Your task to perform on an android device: clear all cookies in the chrome app Image 0: 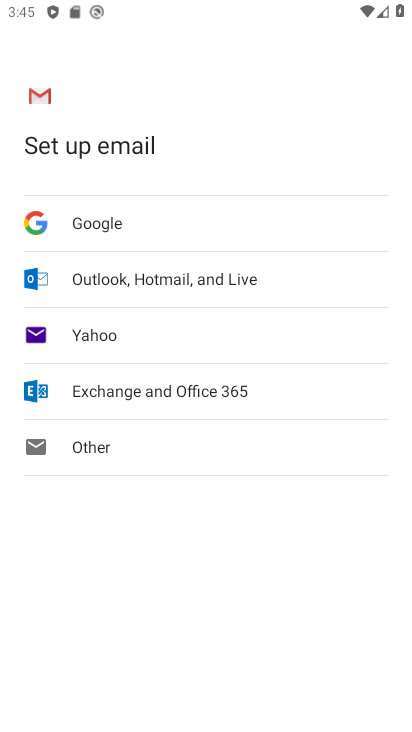
Step 0: press back button
Your task to perform on an android device: clear all cookies in the chrome app Image 1: 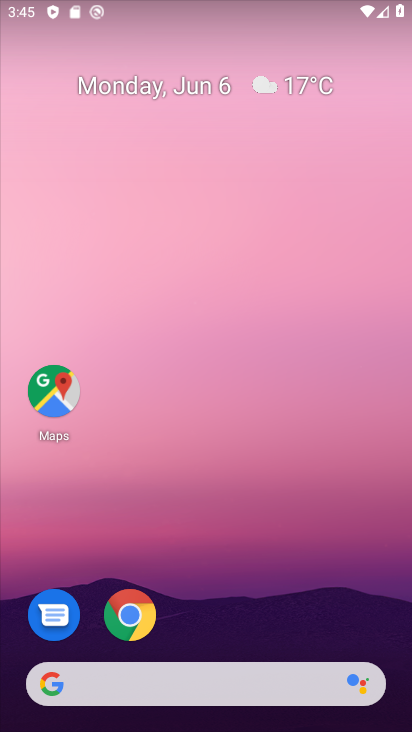
Step 1: drag from (284, 553) to (259, 37)
Your task to perform on an android device: clear all cookies in the chrome app Image 2: 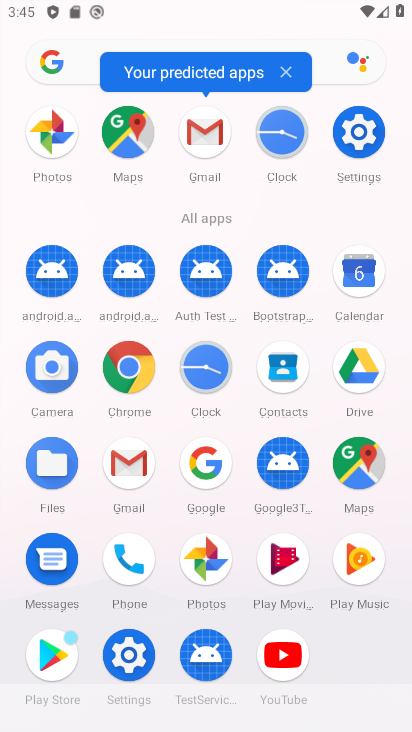
Step 2: drag from (9, 461) to (9, 247)
Your task to perform on an android device: clear all cookies in the chrome app Image 3: 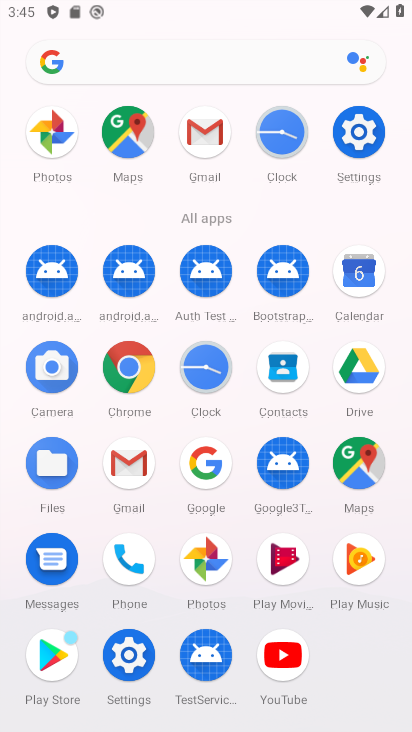
Step 3: drag from (14, 562) to (1, 243)
Your task to perform on an android device: clear all cookies in the chrome app Image 4: 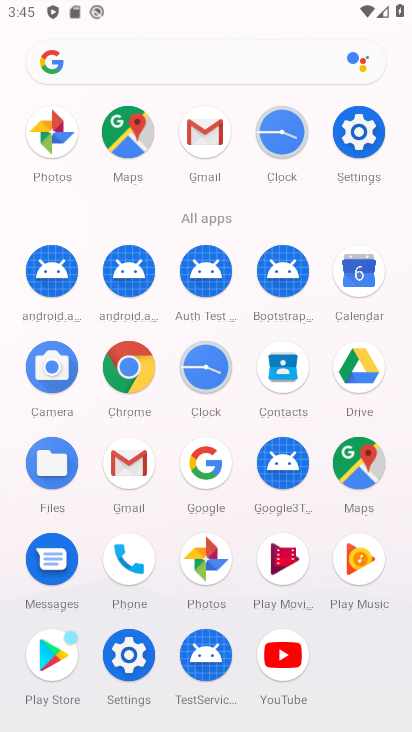
Step 4: click (124, 357)
Your task to perform on an android device: clear all cookies in the chrome app Image 5: 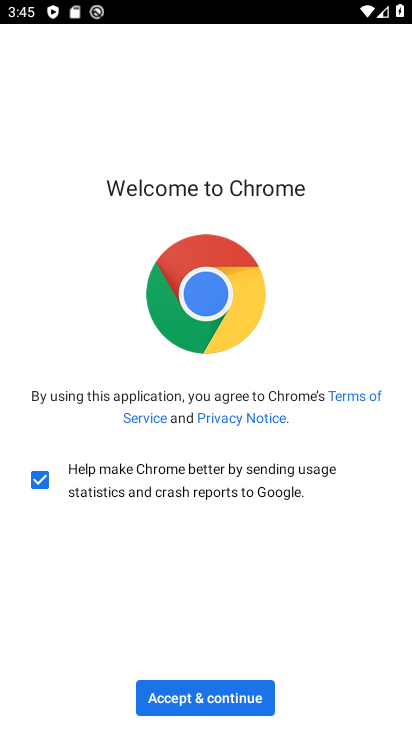
Step 5: click (222, 687)
Your task to perform on an android device: clear all cookies in the chrome app Image 6: 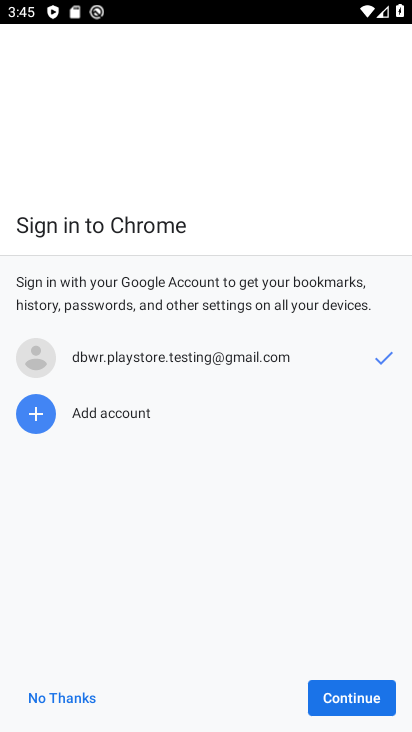
Step 6: click (332, 682)
Your task to perform on an android device: clear all cookies in the chrome app Image 7: 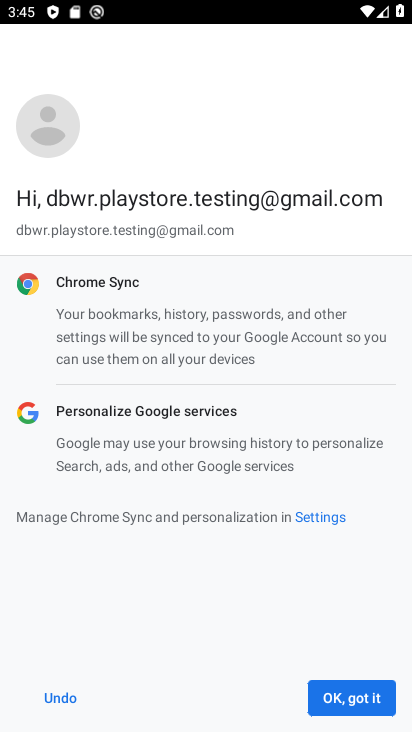
Step 7: click (350, 693)
Your task to perform on an android device: clear all cookies in the chrome app Image 8: 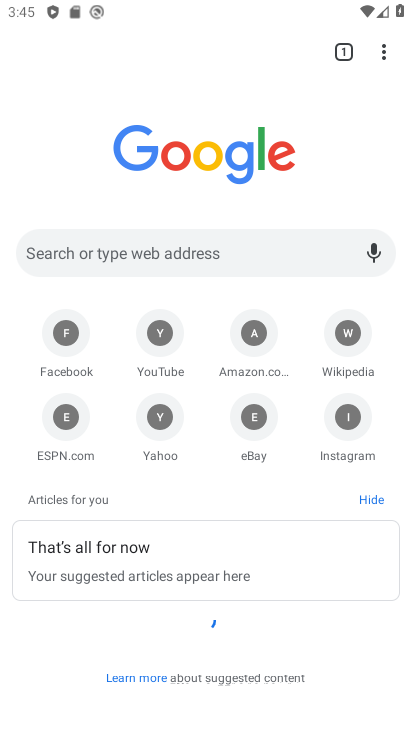
Step 8: drag from (379, 48) to (197, 421)
Your task to perform on an android device: clear all cookies in the chrome app Image 9: 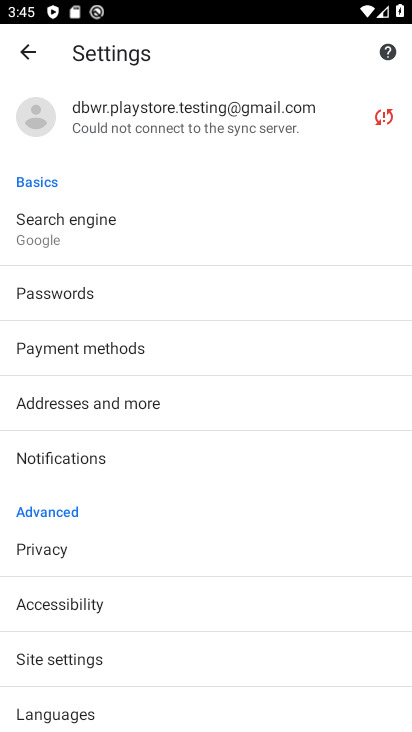
Step 9: drag from (192, 623) to (216, 327)
Your task to perform on an android device: clear all cookies in the chrome app Image 10: 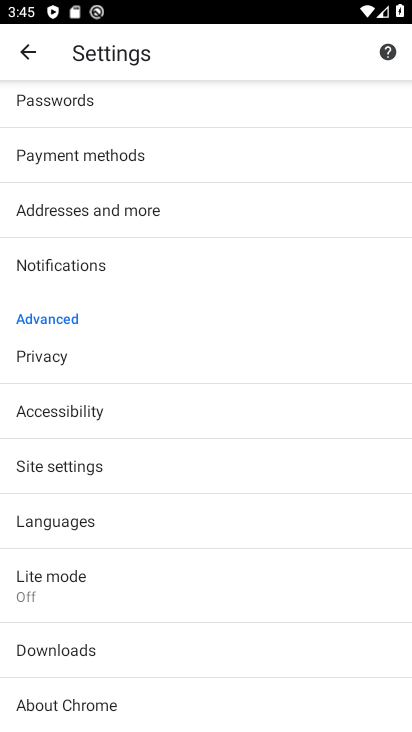
Step 10: drag from (229, 574) to (230, 167)
Your task to perform on an android device: clear all cookies in the chrome app Image 11: 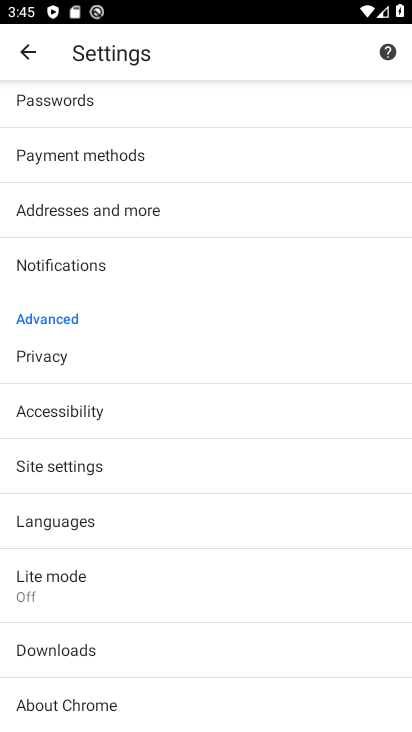
Step 11: drag from (221, 630) to (242, 223)
Your task to perform on an android device: clear all cookies in the chrome app Image 12: 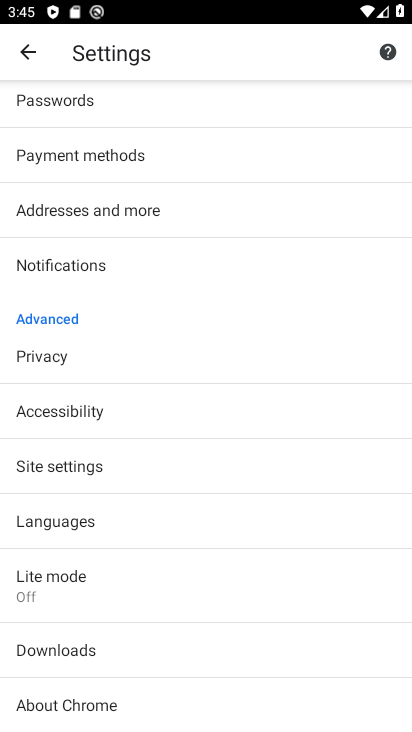
Step 12: click (78, 350)
Your task to perform on an android device: clear all cookies in the chrome app Image 13: 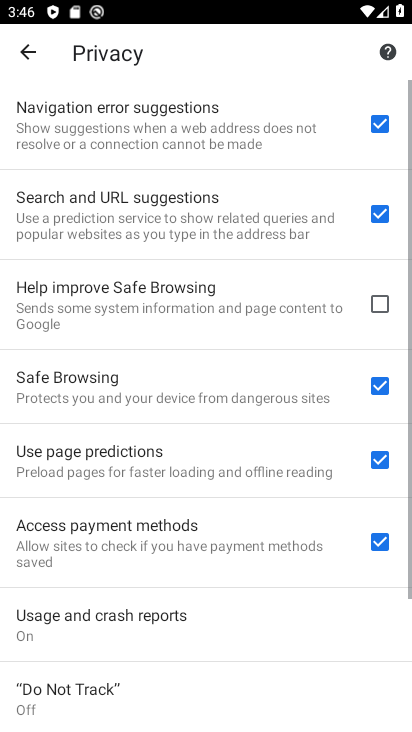
Step 13: drag from (230, 670) to (219, 151)
Your task to perform on an android device: clear all cookies in the chrome app Image 14: 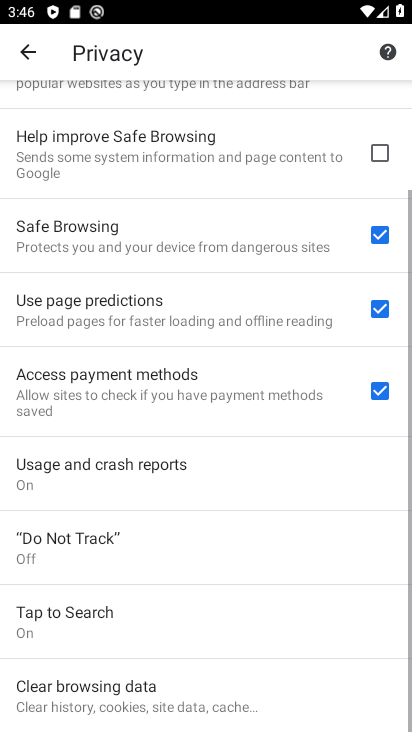
Step 14: click (123, 683)
Your task to perform on an android device: clear all cookies in the chrome app Image 15: 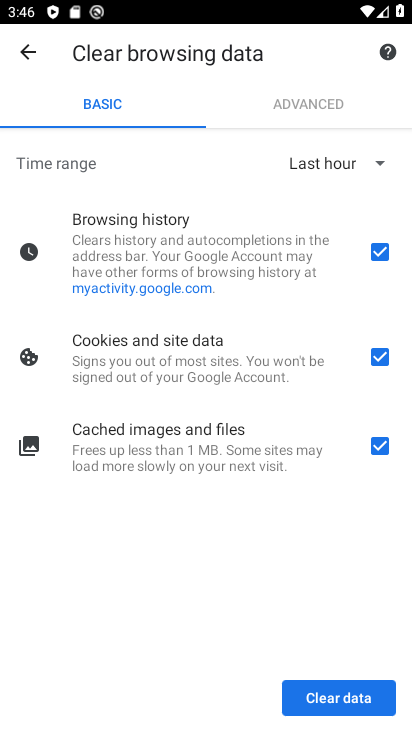
Step 15: click (338, 698)
Your task to perform on an android device: clear all cookies in the chrome app Image 16: 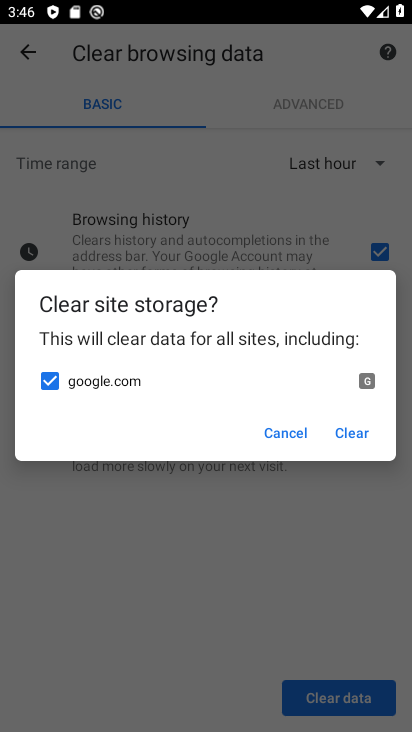
Step 16: click (368, 432)
Your task to perform on an android device: clear all cookies in the chrome app Image 17: 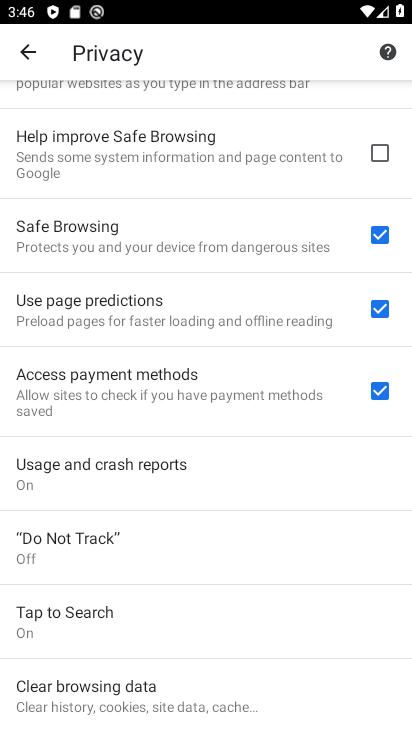
Step 17: task complete